Your task to perform on an android device: Go to display settings Image 0: 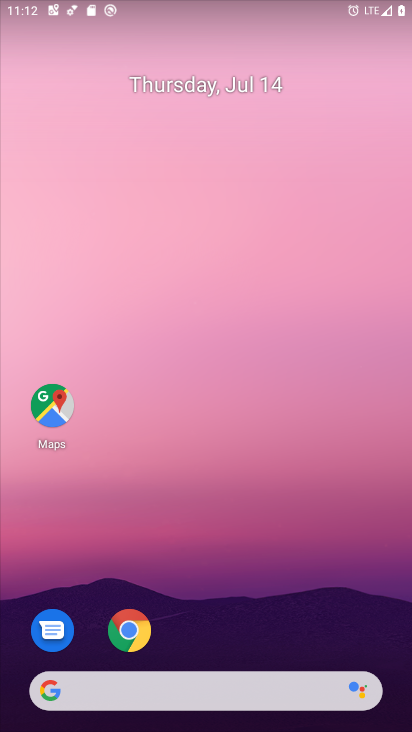
Step 0: drag from (188, 634) to (259, 77)
Your task to perform on an android device: Go to display settings Image 1: 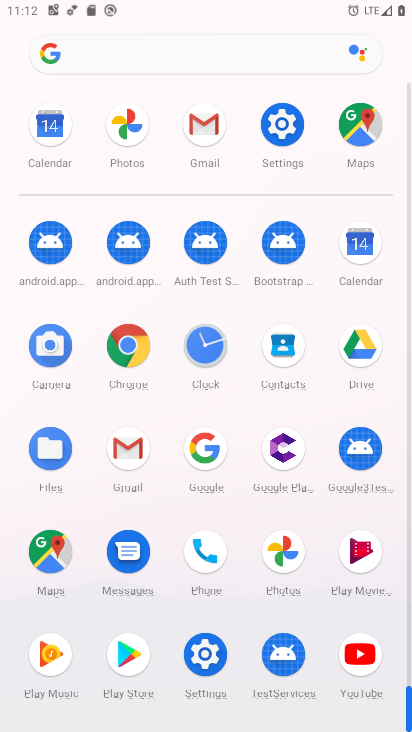
Step 1: click (280, 135)
Your task to perform on an android device: Go to display settings Image 2: 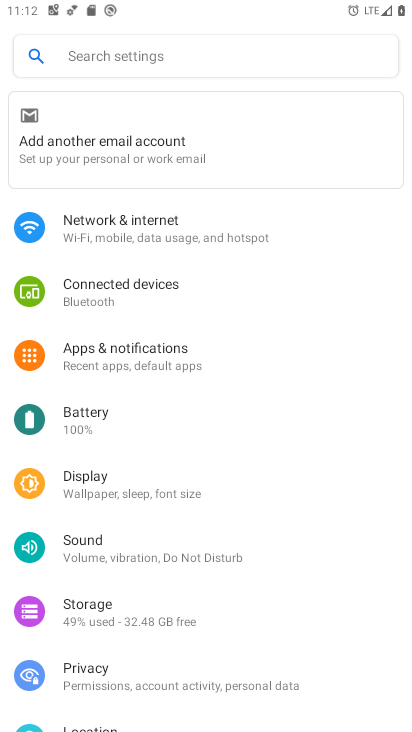
Step 2: drag from (134, 598) to (187, 229)
Your task to perform on an android device: Go to display settings Image 3: 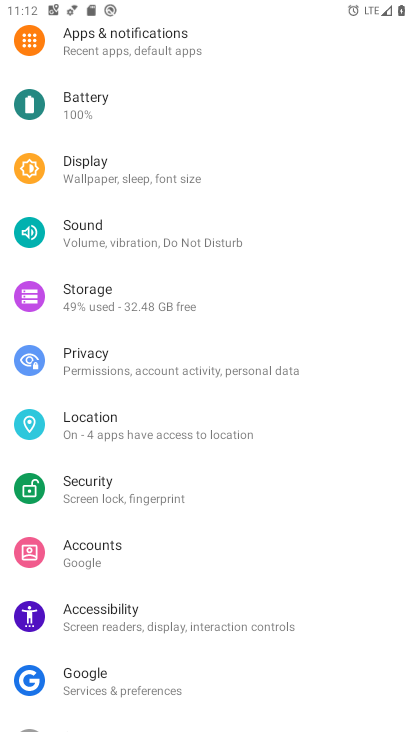
Step 3: click (169, 157)
Your task to perform on an android device: Go to display settings Image 4: 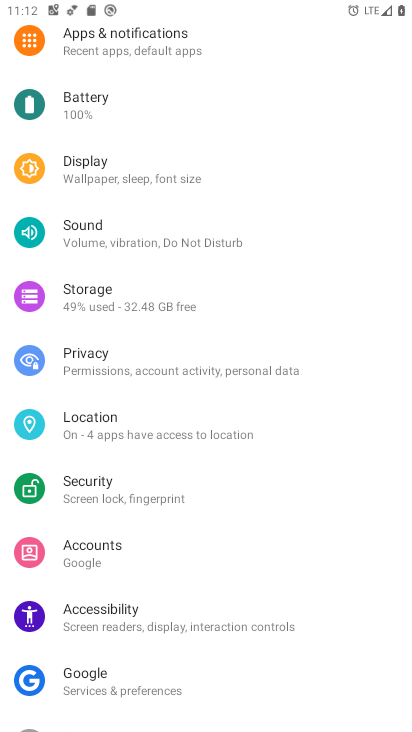
Step 4: click (169, 157)
Your task to perform on an android device: Go to display settings Image 5: 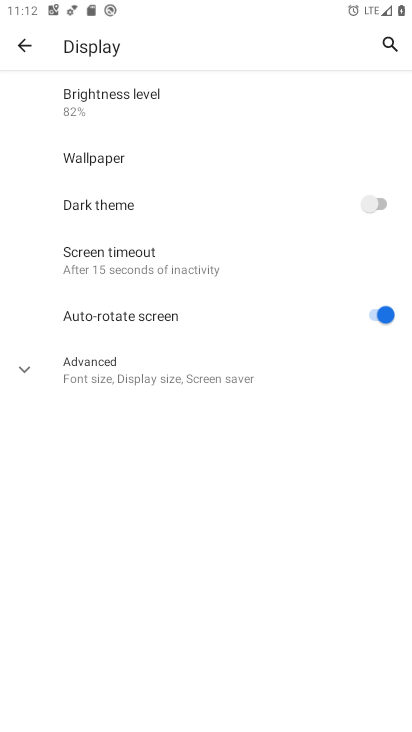
Step 5: click (131, 376)
Your task to perform on an android device: Go to display settings Image 6: 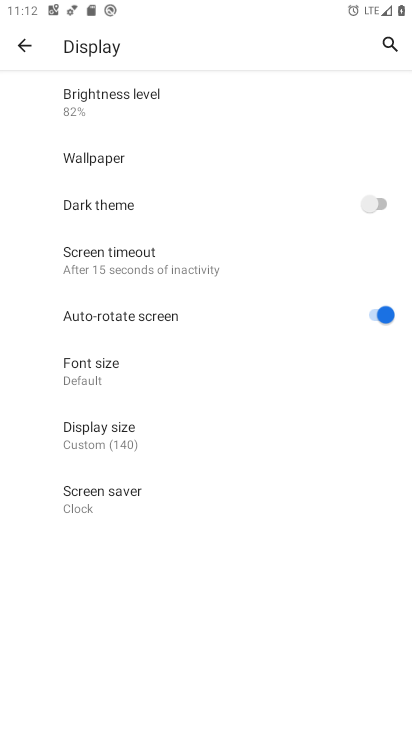
Step 6: task complete